Your task to perform on an android device: change notification settings in the gmail app Image 0: 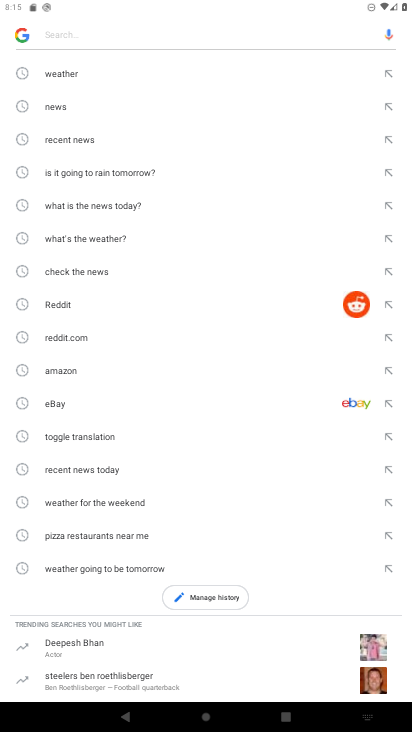
Step 0: press home button
Your task to perform on an android device: change notification settings in the gmail app Image 1: 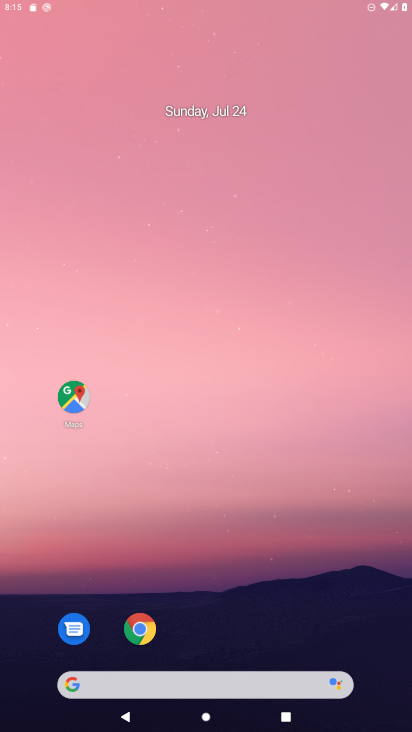
Step 1: drag from (371, 692) to (245, 44)
Your task to perform on an android device: change notification settings in the gmail app Image 2: 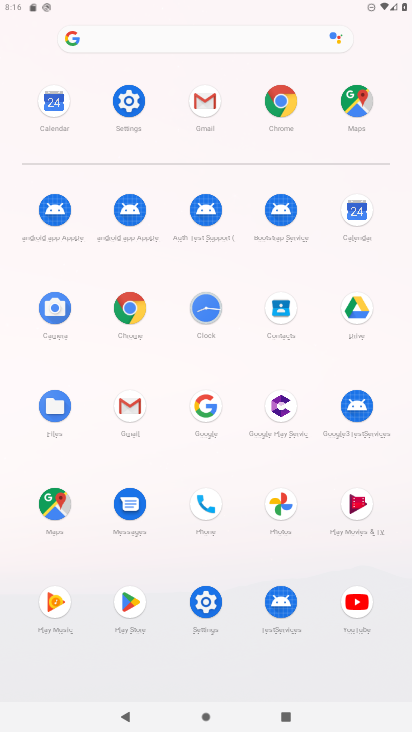
Step 2: click (137, 399)
Your task to perform on an android device: change notification settings in the gmail app Image 3: 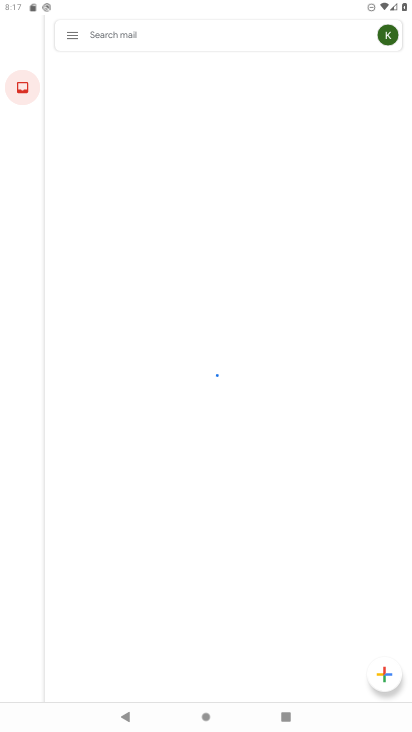
Step 3: click (59, 35)
Your task to perform on an android device: change notification settings in the gmail app Image 4: 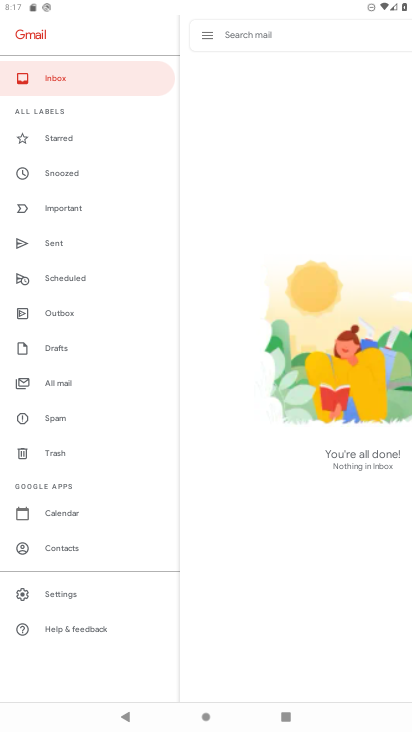
Step 4: click (88, 597)
Your task to perform on an android device: change notification settings in the gmail app Image 5: 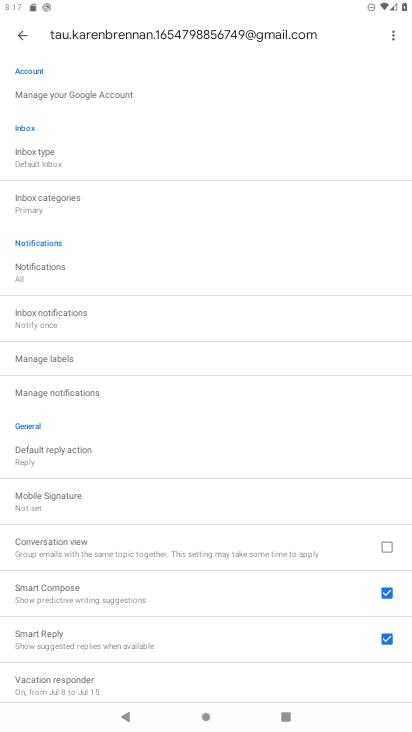
Step 5: click (75, 273)
Your task to perform on an android device: change notification settings in the gmail app Image 6: 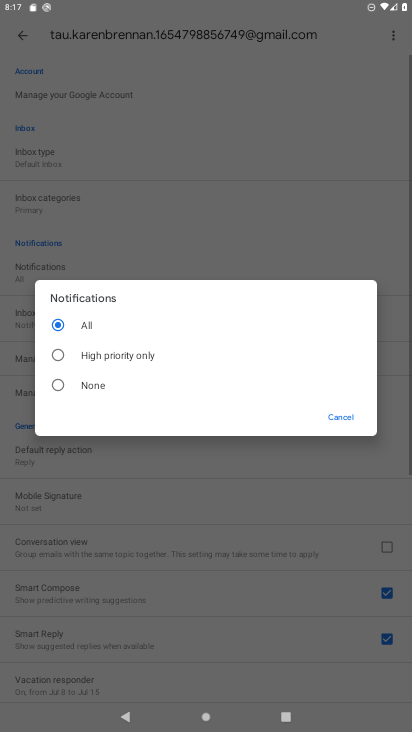
Step 6: click (83, 364)
Your task to perform on an android device: change notification settings in the gmail app Image 7: 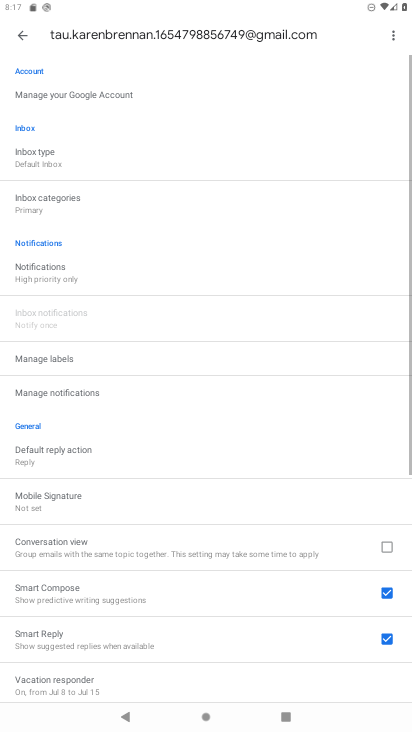
Step 7: task complete